Your task to perform on an android device: Go to CNN.com Image 0: 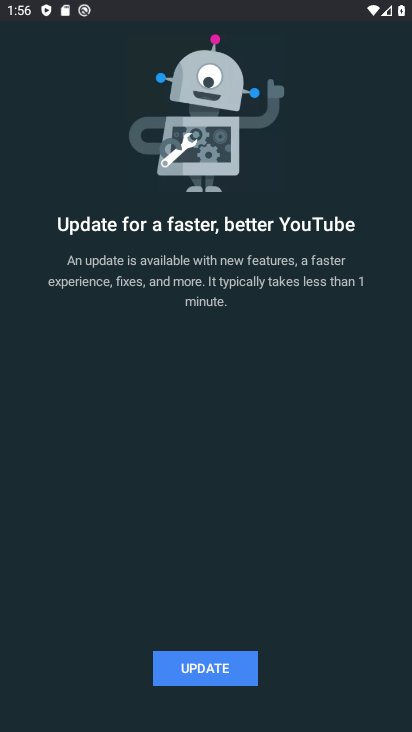
Step 0: press home button
Your task to perform on an android device: Go to CNN.com Image 1: 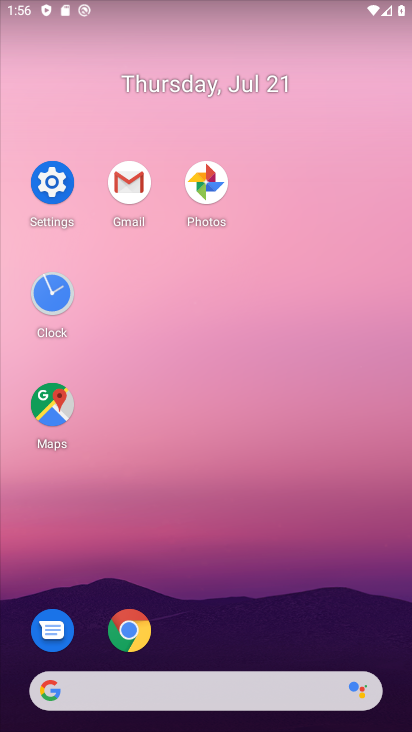
Step 1: click (138, 625)
Your task to perform on an android device: Go to CNN.com Image 2: 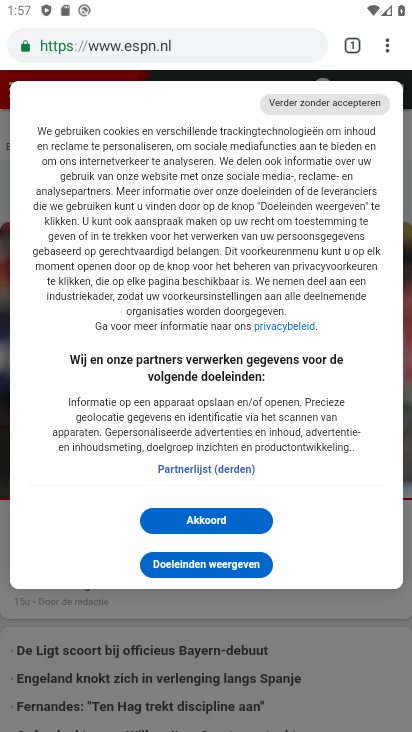
Step 2: click (358, 52)
Your task to perform on an android device: Go to CNN.com Image 3: 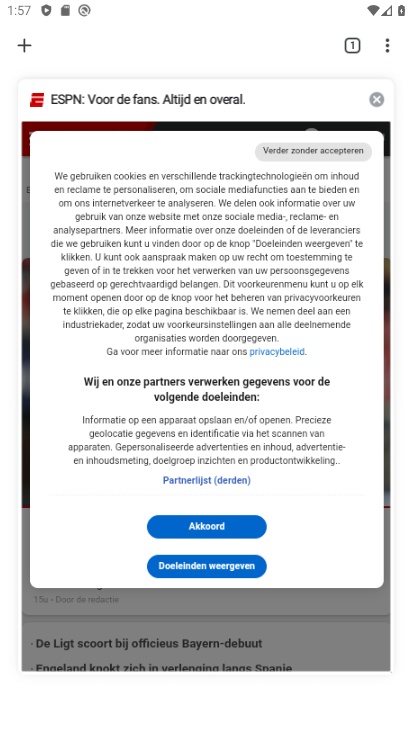
Step 3: click (31, 43)
Your task to perform on an android device: Go to CNN.com Image 4: 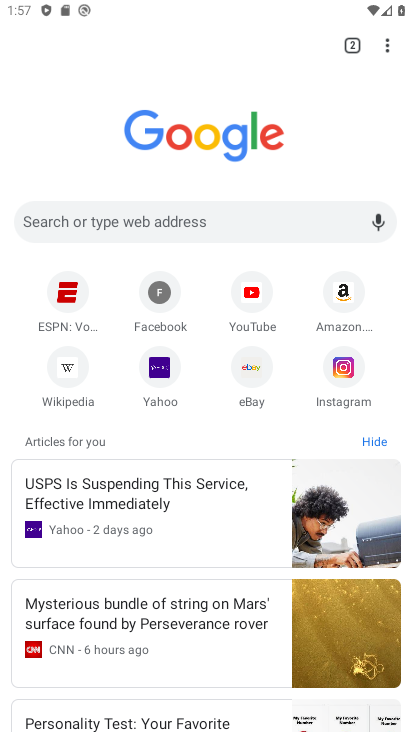
Step 4: click (68, 281)
Your task to perform on an android device: Go to CNN.com Image 5: 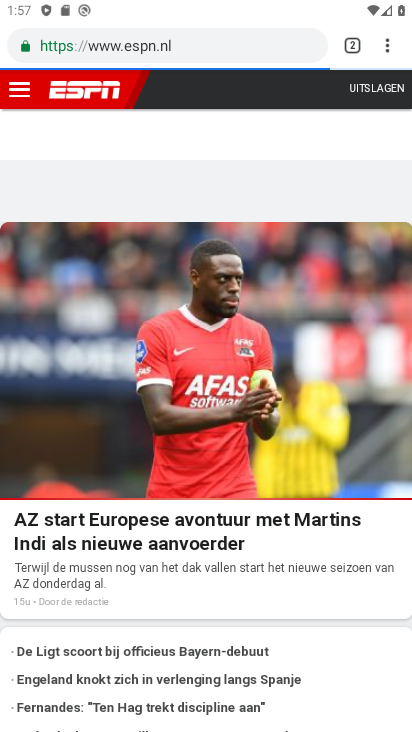
Step 5: task complete